Your task to perform on an android device: Open Google Maps Image 0: 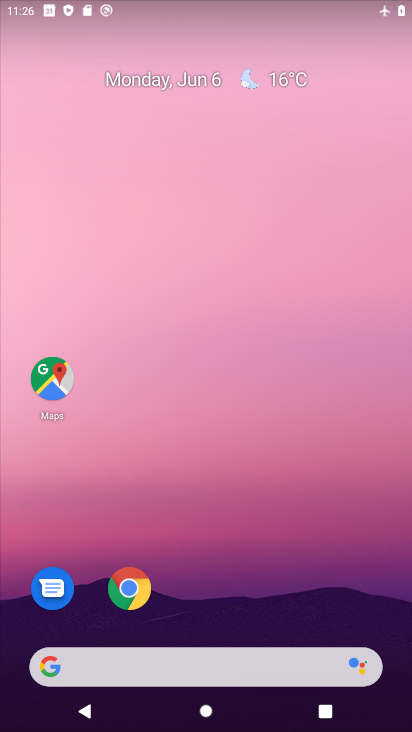
Step 0: click (52, 380)
Your task to perform on an android device: Open Google Maps Image 1: 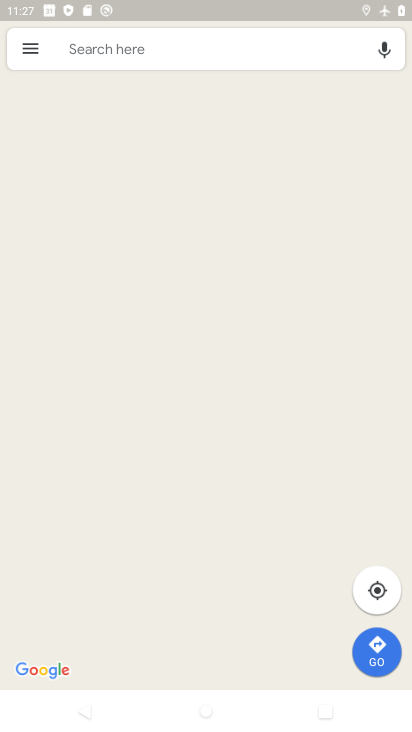
Step 1: task complete